Your task to perform on an android device: set default search engine in the chrome app Image 0: 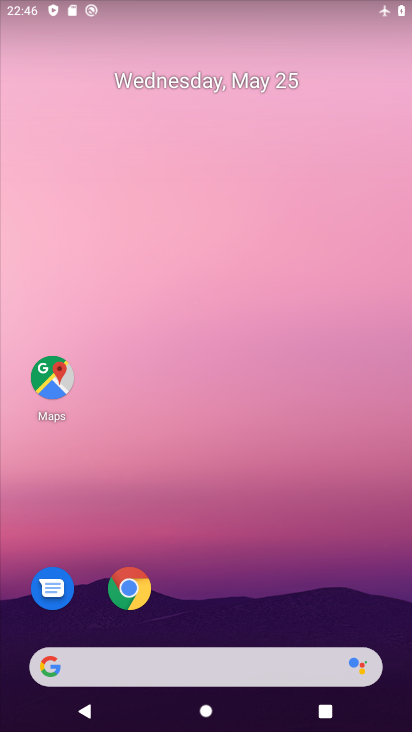
Step 0: click (134, 578)
Your task to perform on an android device: set default search engine in the chrome app Image 1: 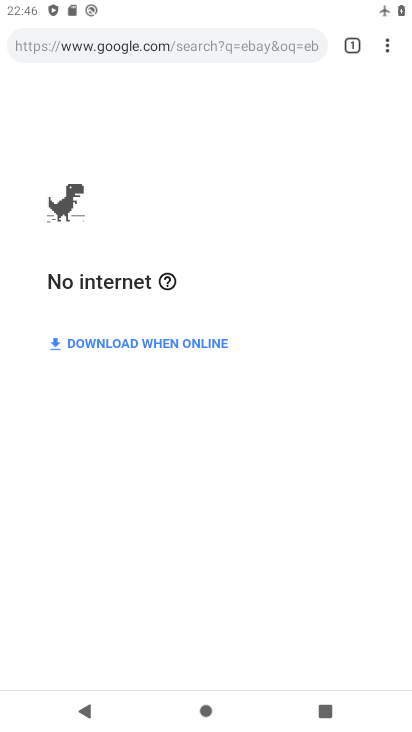
Step 1: drag from (383, 36) to (239, 512)
Your task to perform on an android device: set default search engine in the chrome app Image 2: 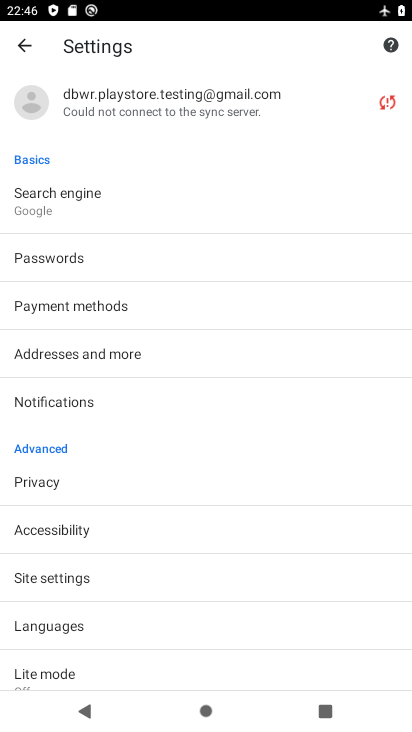
Step 2: click (117, 201)
Your task to perform on an android device: set default search engine in the chrome app Image 3: 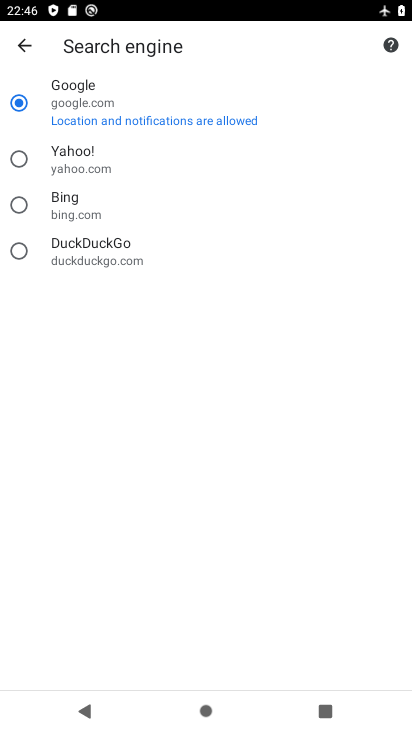
Step 3: task complete